Your task to perform on an android device: remove spam from my inbox in the gmail app Image 0: 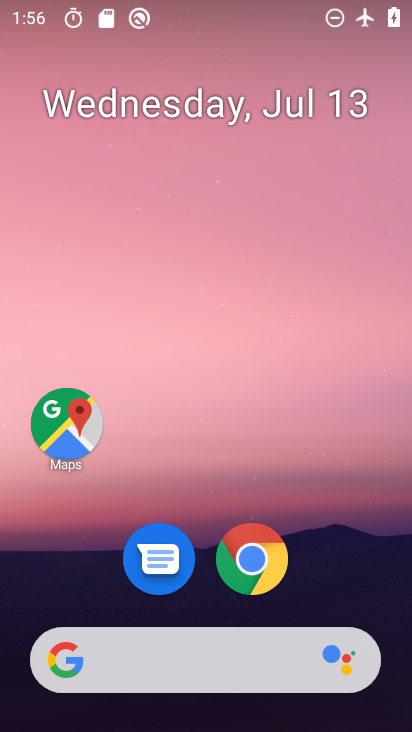
Step 0: drag from (212, 547) to (348, 179)
Your task to perform on an android device: remove spam from my inbox in the gmail app Image 1: 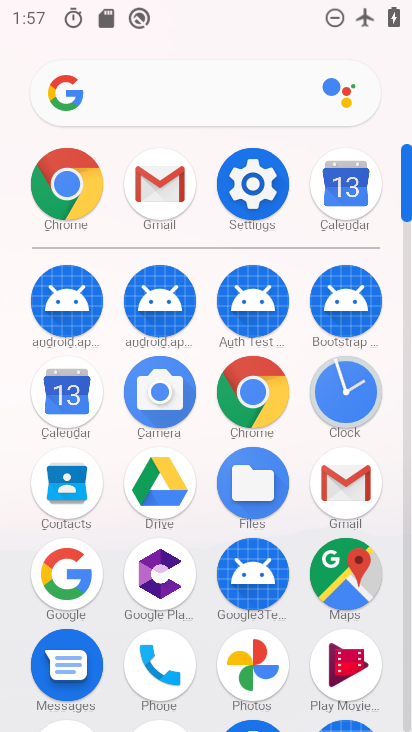
Step 1: click (355, 496)
Your task to perform on an android device: remove spam from my inbox in the gmail app Image 2: 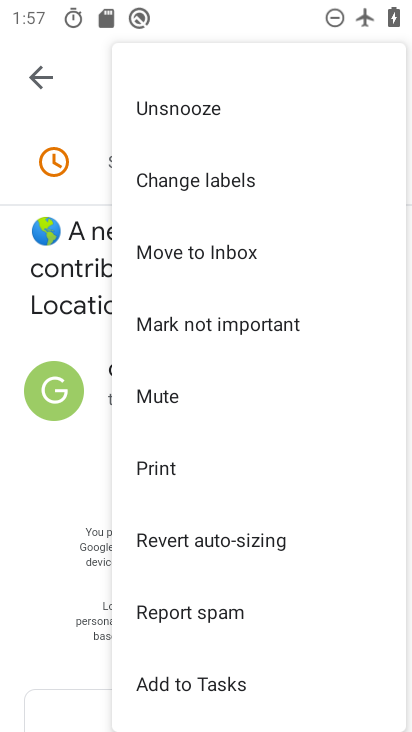
Step 2: press home button
Your task to perform on an android device: remove spam from my inbox in the gmail app Image 3: 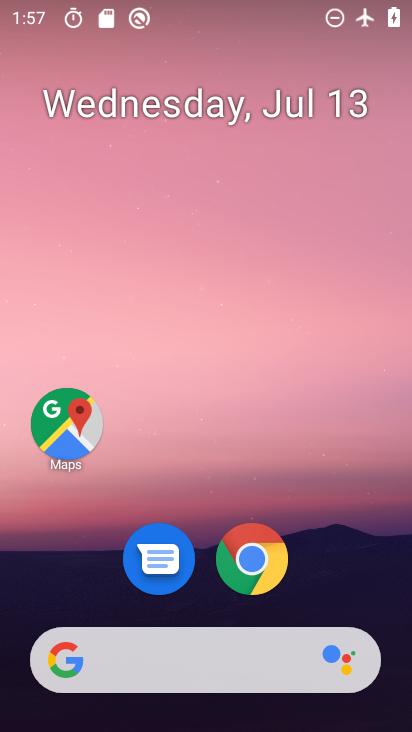
Step 3: drag from (156, 645) to (249, 170)
Your task to perform on an android device: remove spam from my inbox in the gmail app Image 4: 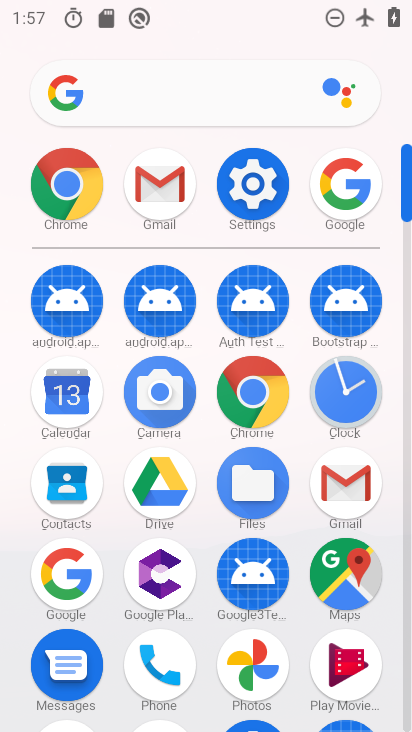
Step 4: click (347, 490)
Your task to perform on an android device: remove spam from my inbox in the gmail app Image 5: 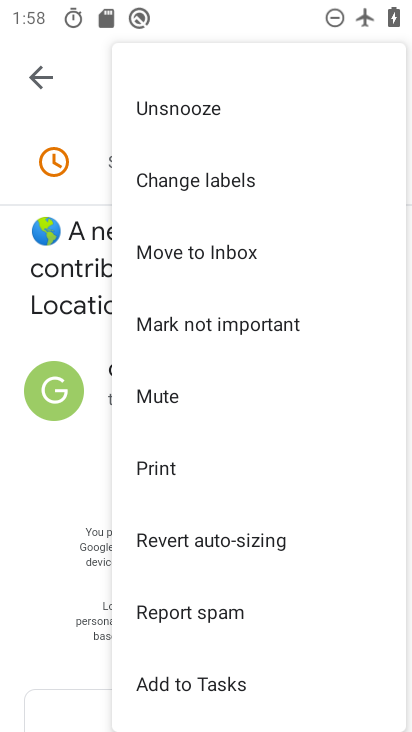
Step 5: click (38, 53)
Your task to perform on an android device: remove spam from my inbox in the gmail app Image 6: 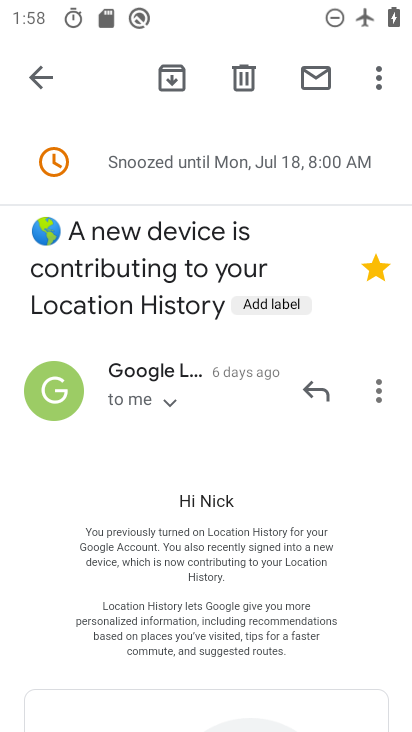
Step 6: click (38, 58)
Your task to perform on an android device: remove spam from my inbox in the gmail app Image 7: 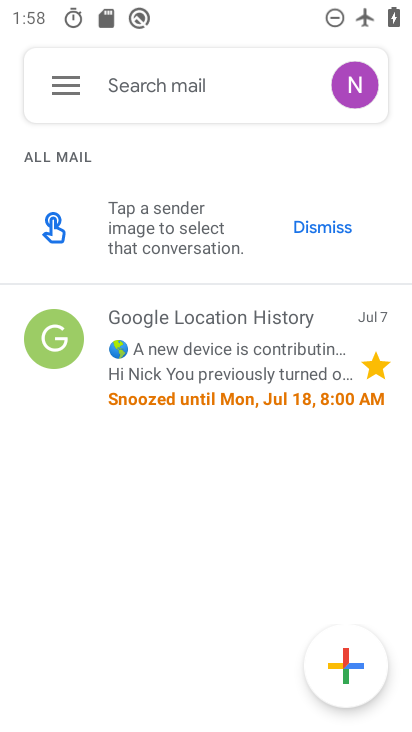
Step 7: click (54, 89)
Your task to perform on an android device: remove spam from my inbox in the gmail app Image 8: 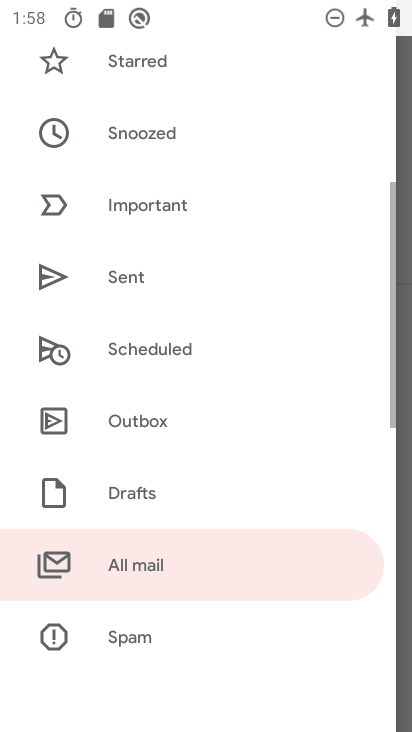
Step 8: drag from (114, 584) to (131, 256)
Your task to perform on an android device: remove spam from my inbox in the gmail app Image 9: 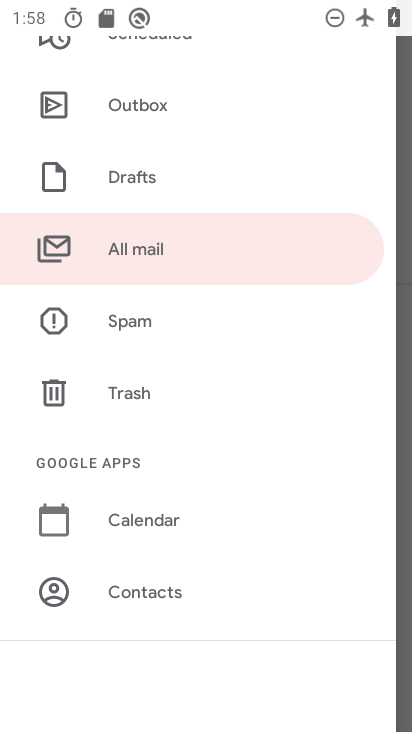
Step 9: click (123, 308)
Your task to perform on an android device: remove spam from my inbox in the gmail app Image 10: 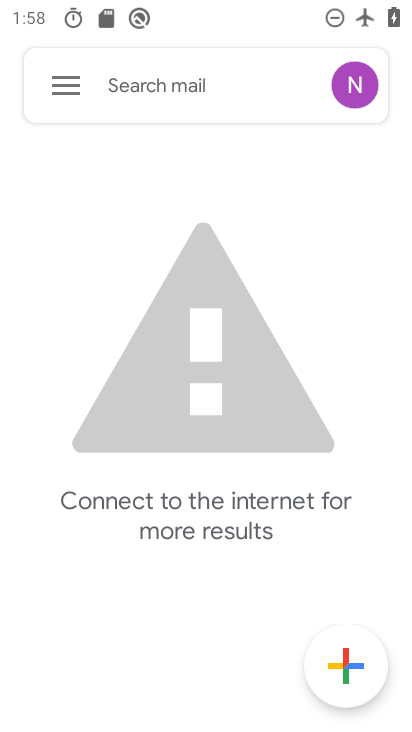
Step 10: task complete